Your task to perform on an android device: Open the calendar app, open the side menu, and click the "Day" option Image 0: 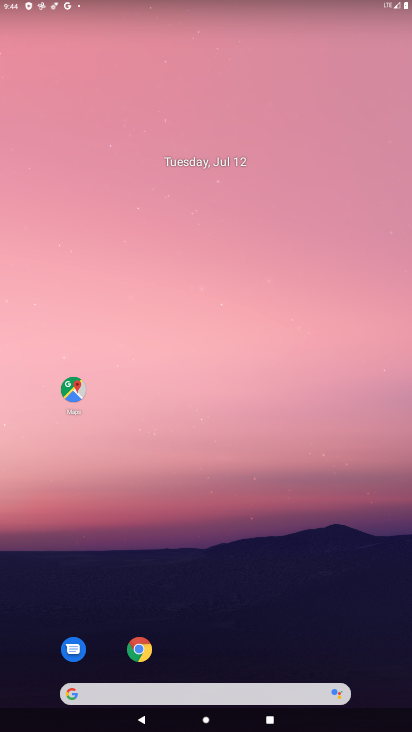
Step 0: press home button
Your task to perform on an android device: Open the calendar app, open the side menu, and click the "Day" option Image 1: 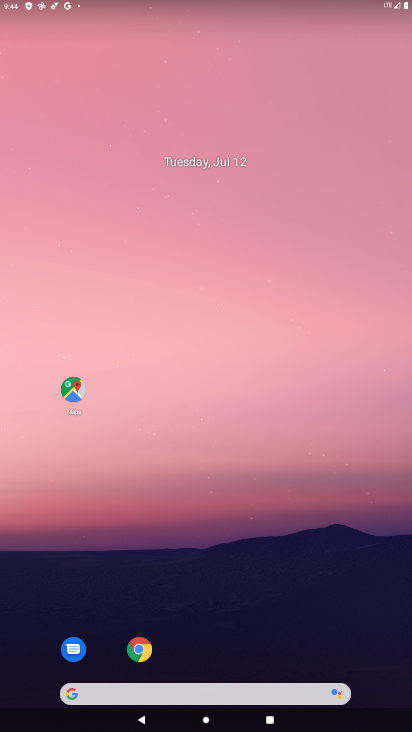
Step 1: drag from (277, 642) to (300, 105)
Your task to perform on an android device: Open the calendar app, open the side menu, and click the "Day" option Image 2: 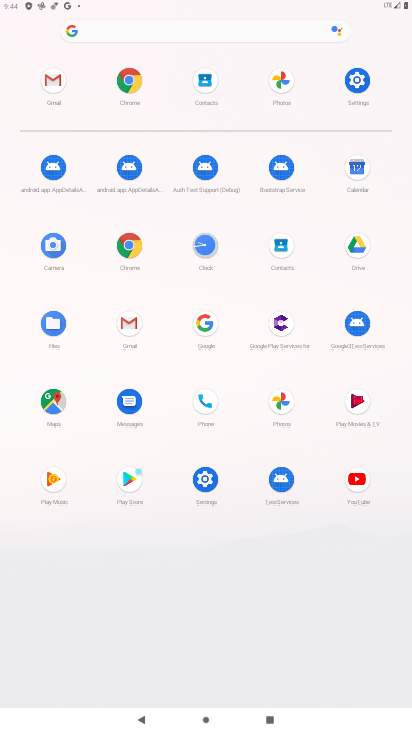
Step 2: click (206, 82)
Your task to perform on an android device: Open the calendar app, open the side menu, and click the "Day" option Image 3: 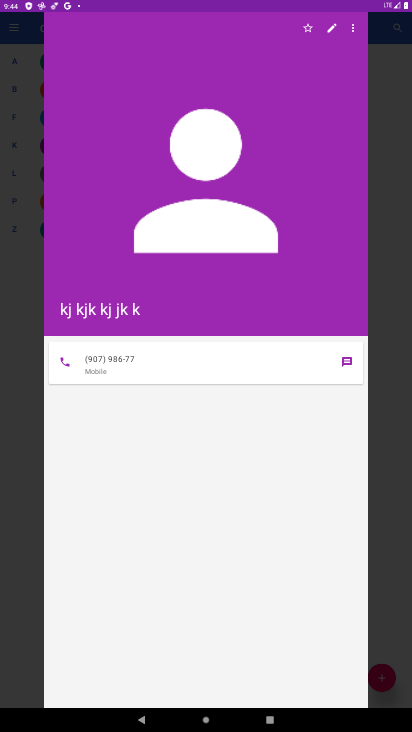
Step 3: press home button
Your task to perform on an android device: Open the calendar app, open the side menu, and click the "Day" option Image 4: 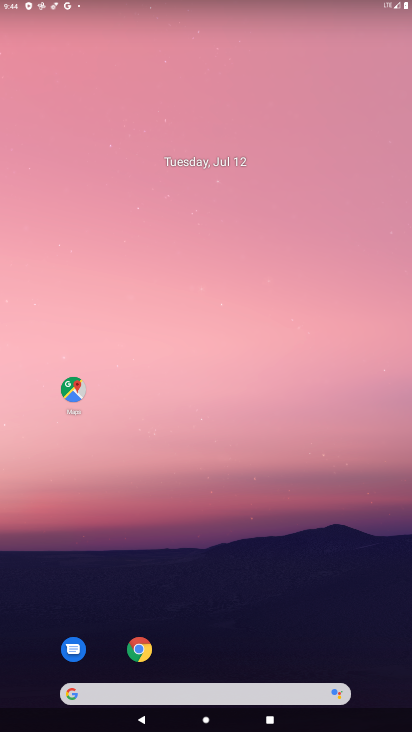
Step 4: drag from (245, 628) to (266, 73)
Your task to perform on an android device: Open the calendar app, open the side menu, and click the "Day" option Image 5: 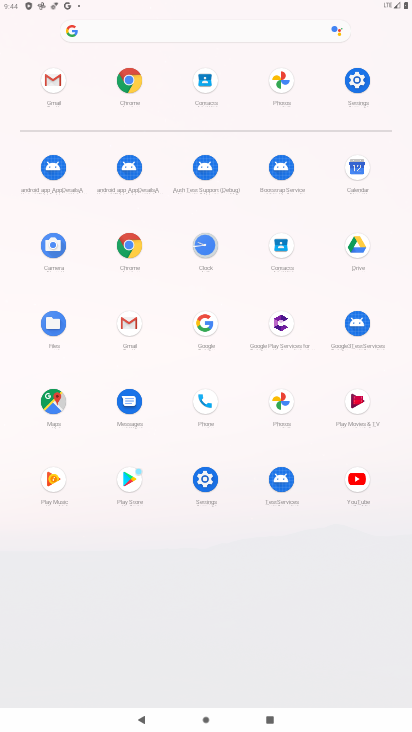
Step 5: click (357, 179)
Your task to perform on an android device: Open the calendar app, open the side menu, and click the "Day" option Image 6: 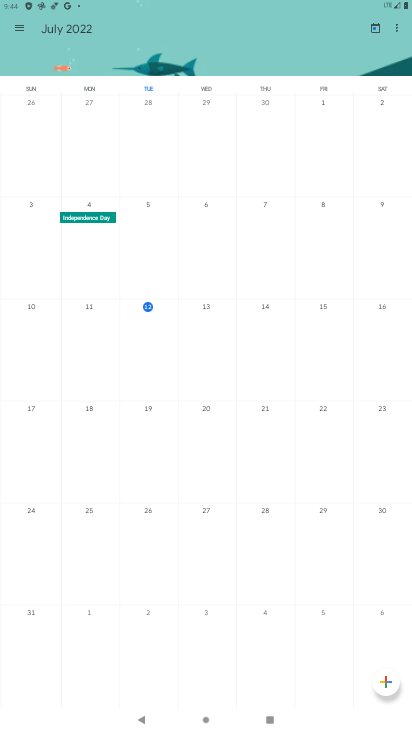
Step 6: click (21, 24)
Your task to perform on an android device: Open the calendar app, open the side menu, and click the "Day" option Image 7: 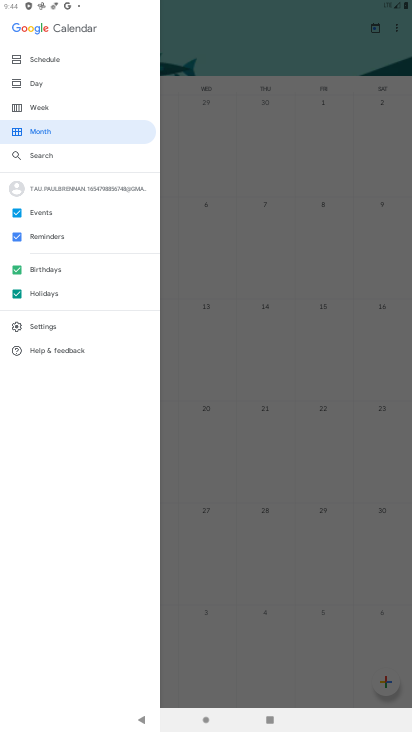
Step 7: click (48, 81)
Your task to perform on an android device: Open the calendar app, open the side menu, and click the "Day" option Image 8: 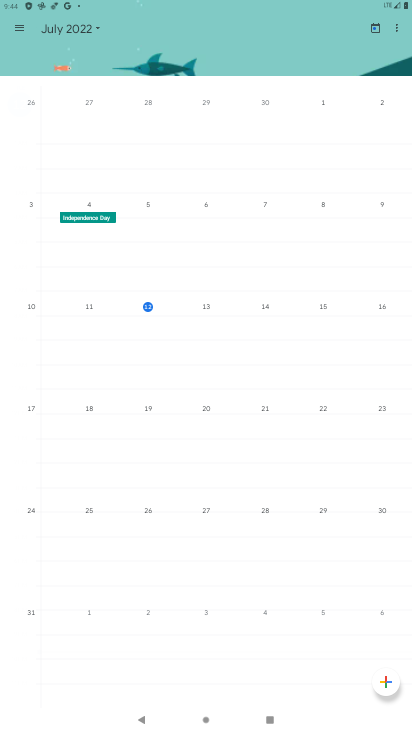
Step 8: task complete